Your task to perform on an android device: Open the calendar and show me this week's events Image 0: 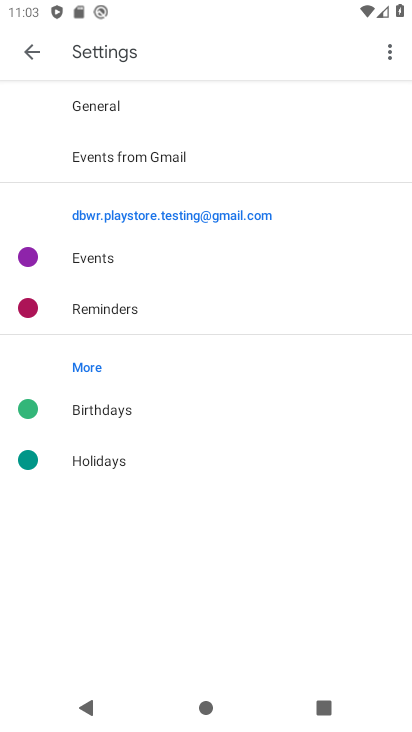
Step 0: press home button
Your task to perform on an android device: Open the calendar and show me this week's events Image 1: 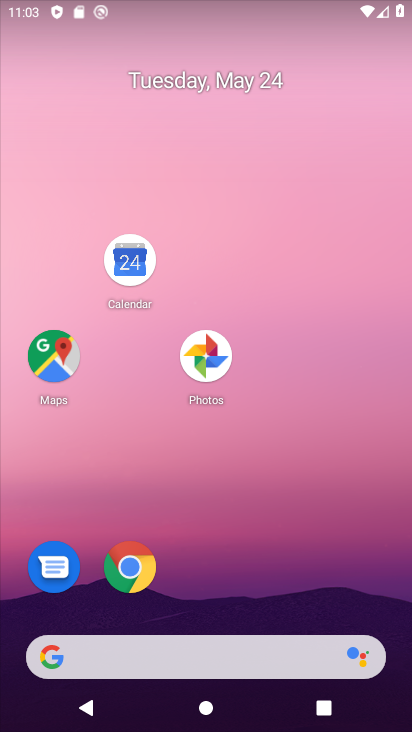
Step 1: click (136, 245)
Your task to perform on an android device: Open the calendar and show me this week's events Image 2: 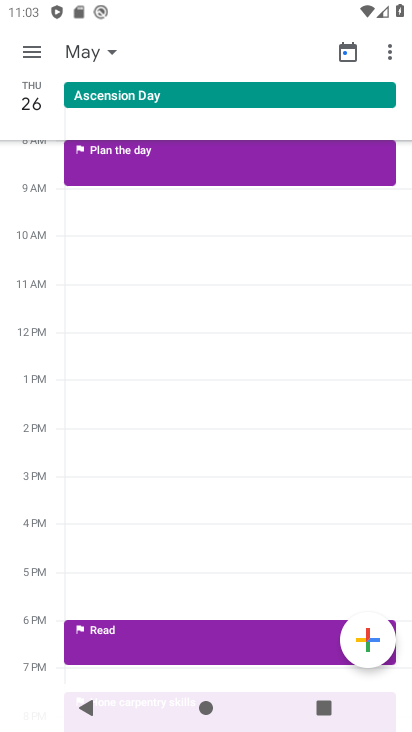
Step 2: click (23, 54)
Your task to perform on an android device: Open the calendar and show me this week's events Image 3: 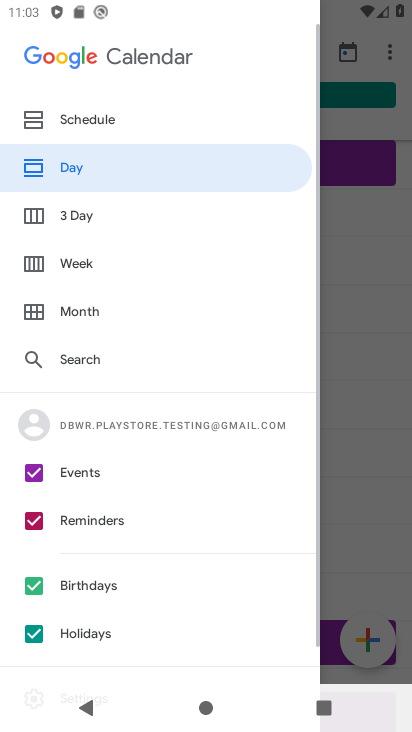
Step 3: click (71, 274)
Your task to perform on an android device: Open the calendar and show me this week's events Image 4: 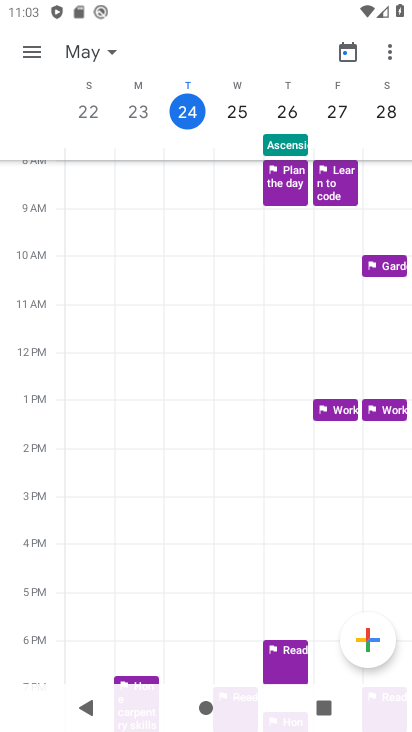
Step 4: task complete